Your task to perform on an android device: open app "Etsy: Buy & Sell Unique Items" Image 0: 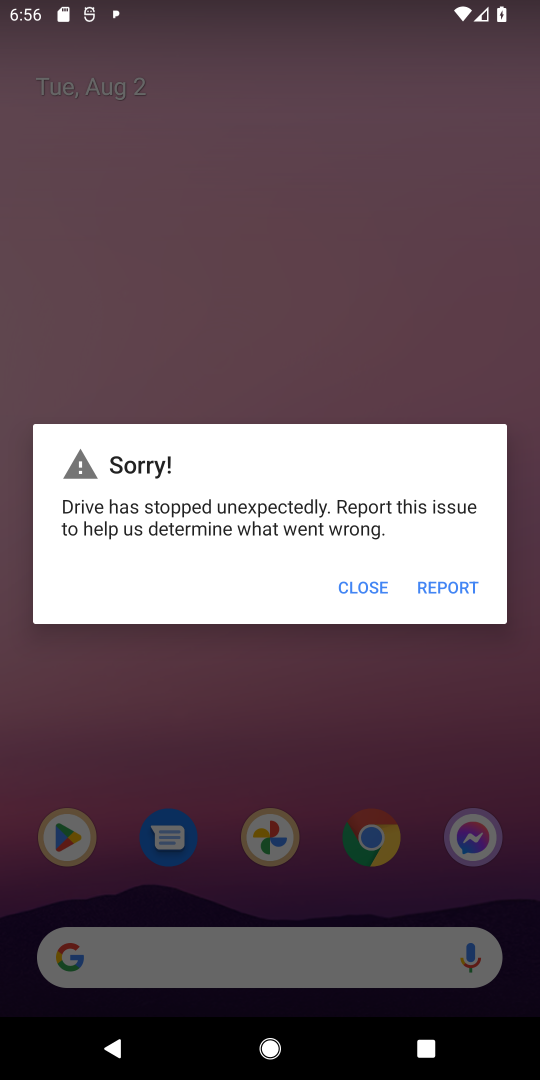
Step 0: press home button
Your task to perform on an android device: open app "Etsy: Buy & Sell Unique Items" Image 1: 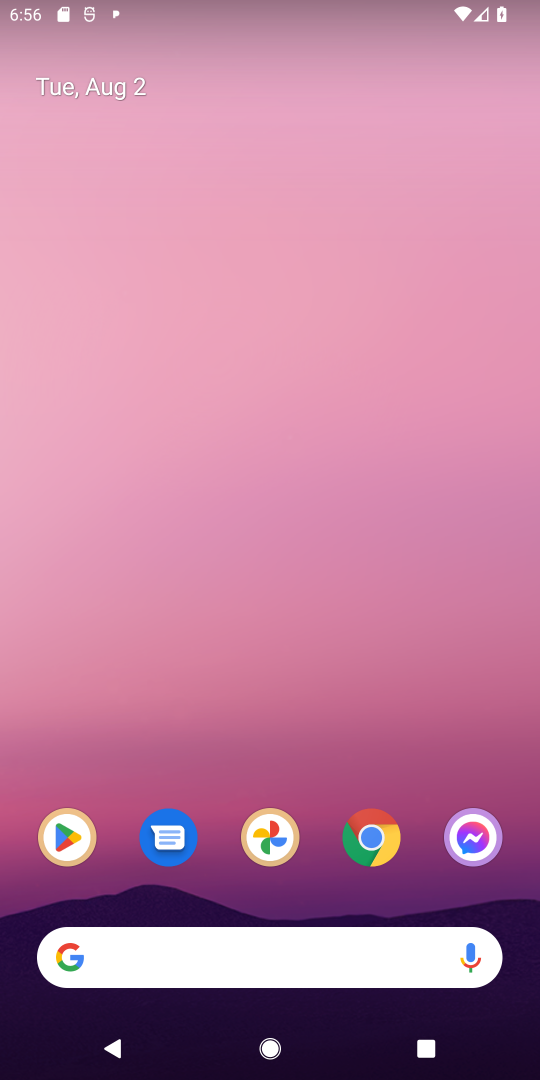
Step 1: click (73, 837)
Your task to perform on an android device: open app "Etsy: Buy & Sell Unique Items" Image 2: 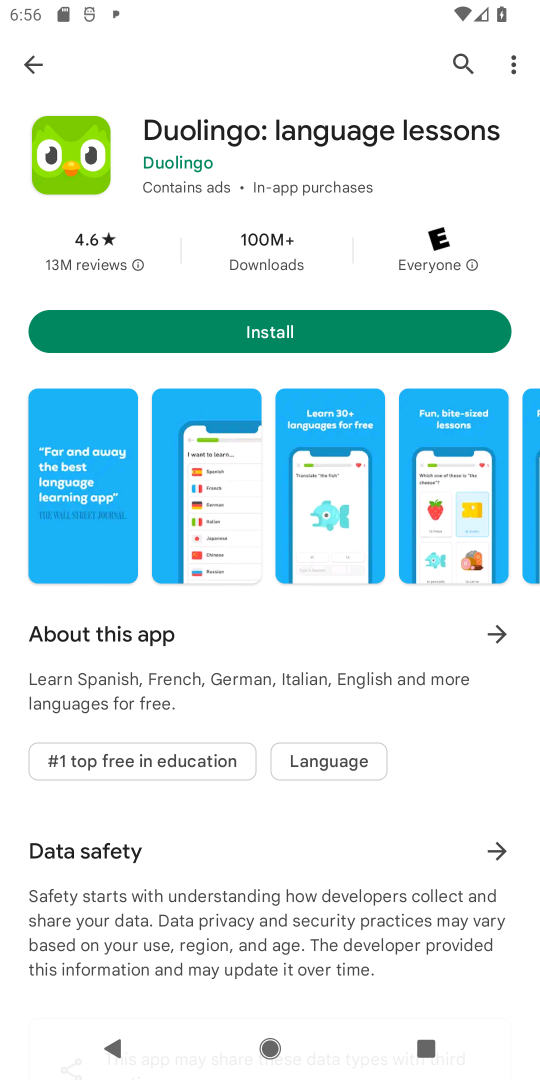
Step 2: click (459, 63)
Your task to perform on an android device: open app "Etsy: Buy & Sell Unique Items" Image 3: 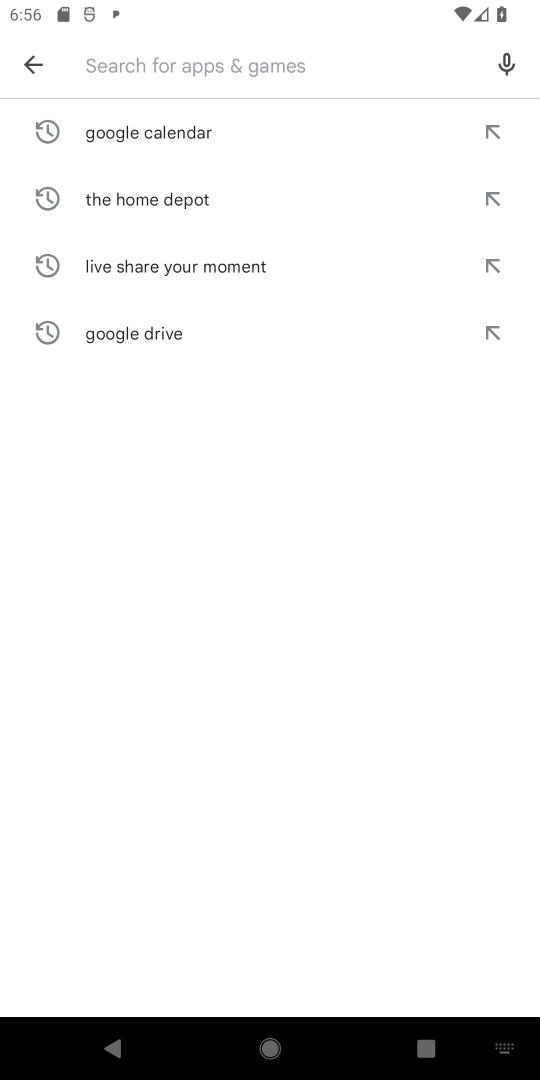
Step 3: type "Etsy: Buy & Sell Unique Items"
Your task to perform on an android device: open app "Etsy: Buy & Sell Unique Items" Image 4: 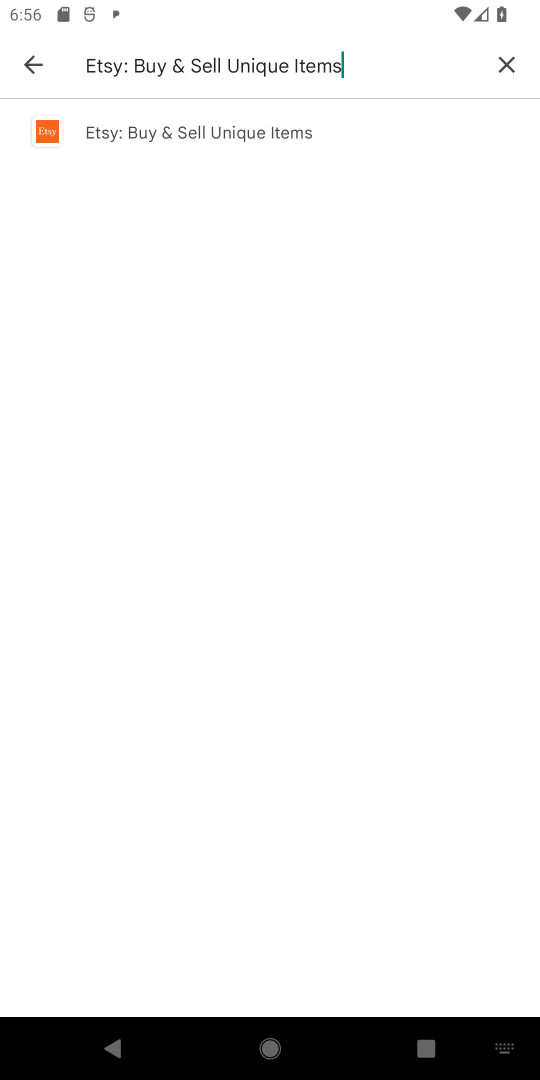
Step 4: click (141, 134)
Your task to perform on an android device: open app "Etsy: Buy & Sell Unique Items" Image 5: 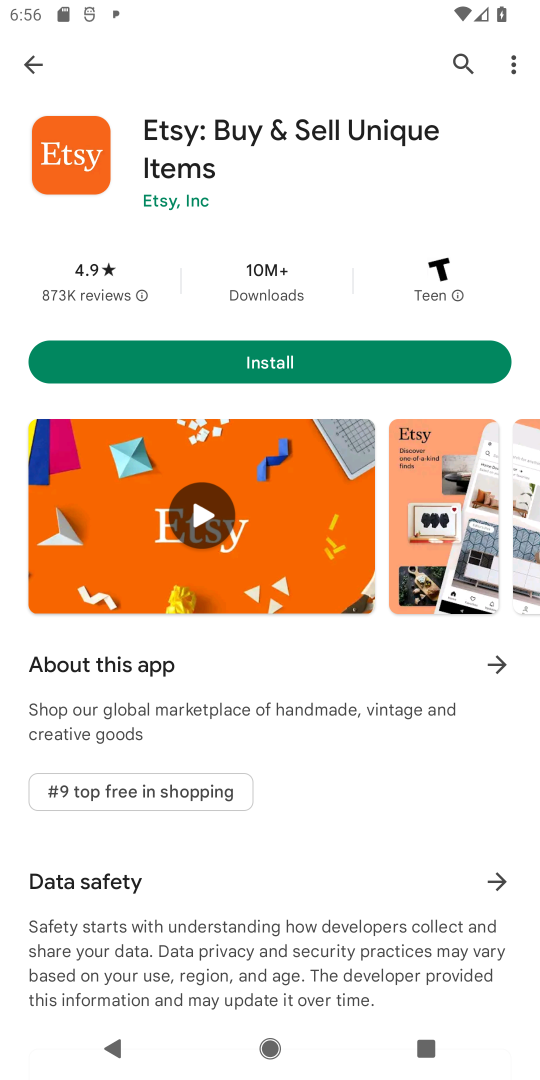
Step 5: task complete